Your task to perform on an android device: manage bookmarks in the chrome app Image 0: 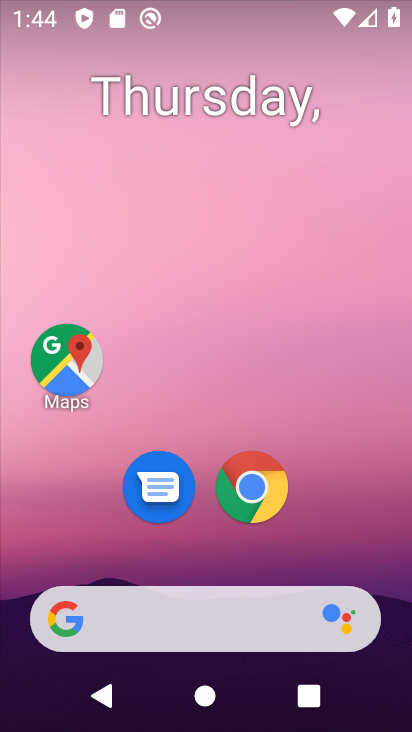
Step 0: click (246, 483)
Your task to perform on an android device: manage bookmarks in the chrome app Image 1: 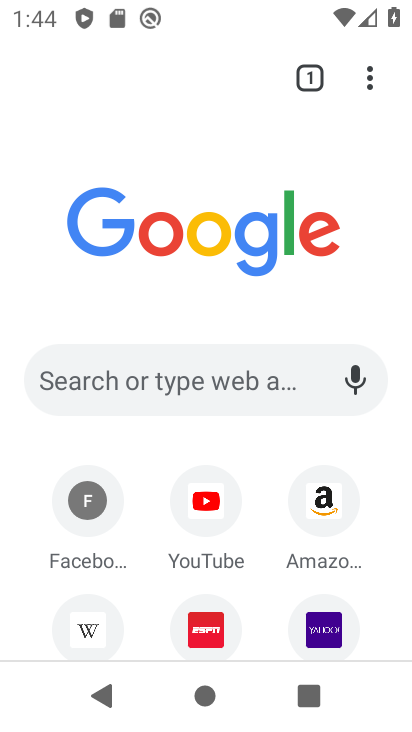
Step 1: click (364, 84)
Your task to perform on an android device: manage bookmarks in the chrome app Image 2: 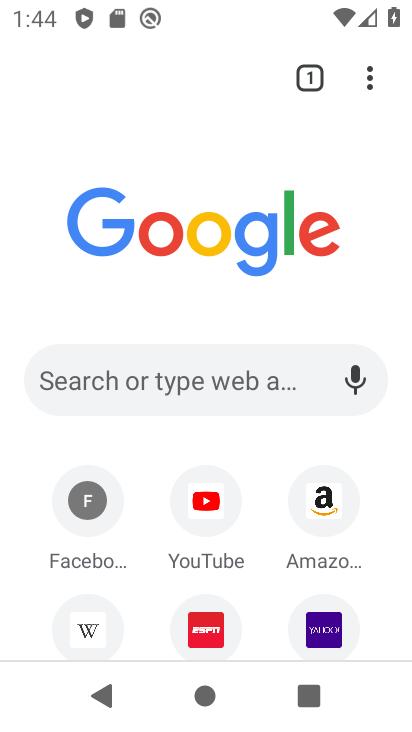
Step 2: click (365, 88)
Your task to perform on an android device: manage bookmarks in the chrome app Image 3: 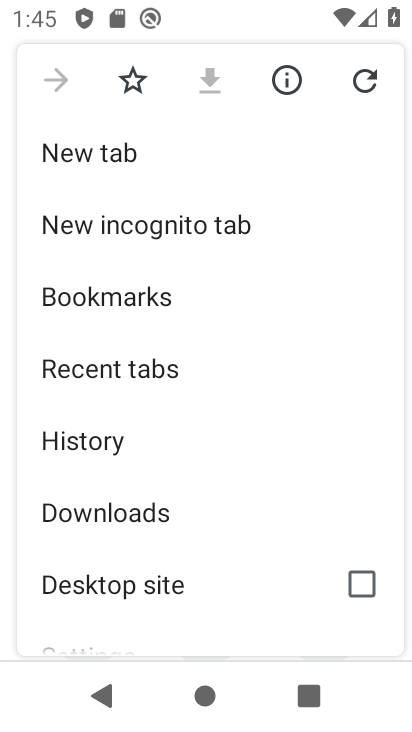
Step 3: click (176, 299)
Your task to perform on an android device: manage bookmarks in the chrome app Image 4: 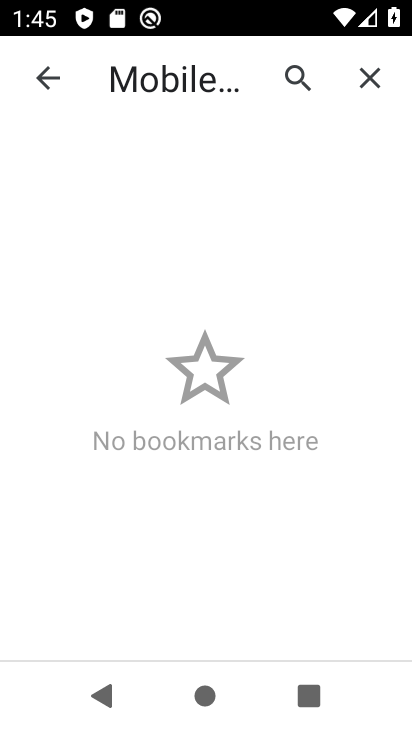
Step 4: click (366, 73)
Your task to perform on an android device: manage bookmarks in the chrome app Image 5: 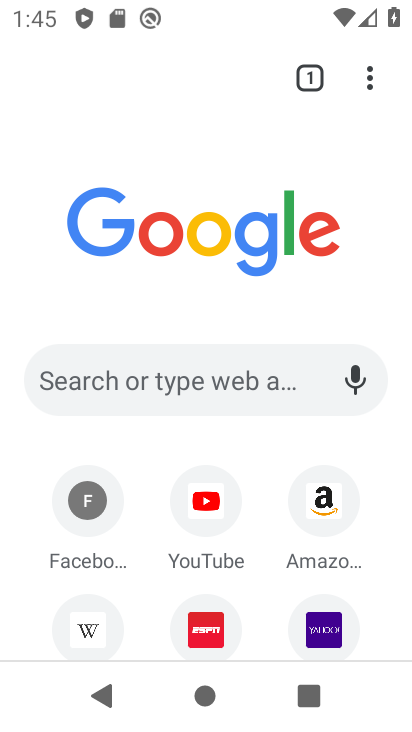
Step 5: click (377, 73)
Your task to perform on an android device: manage bookmarks in the chrome app Image 6: 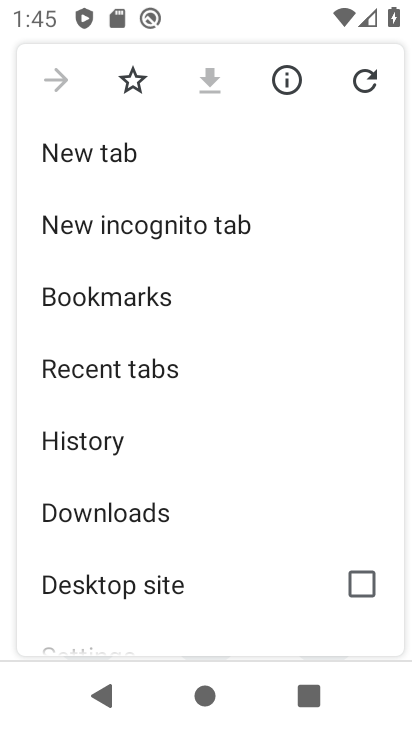
Step 6: click (157, 83)
Your task to perform on an android device: manage bookmarks in the chrome app Image 7: 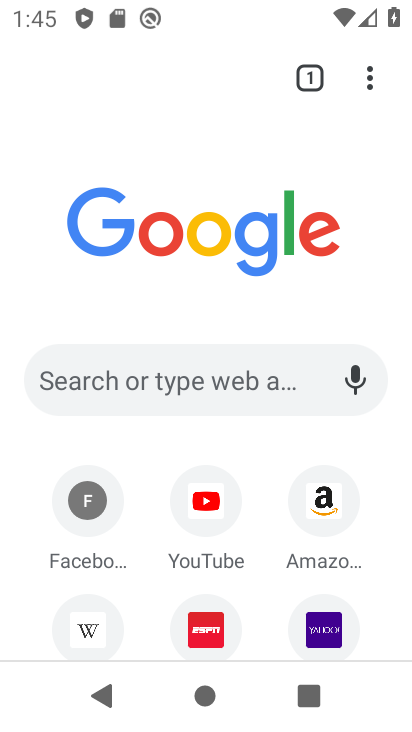
Step 7: task complete